Your task to perform on an android device: Go to CNN.com Image 0: 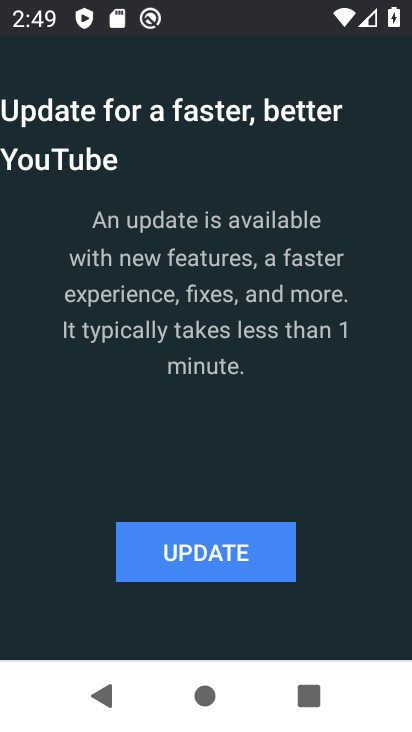
Step 0: press home button
Your task to perform on an android device: Go to CNN.com Image 1: 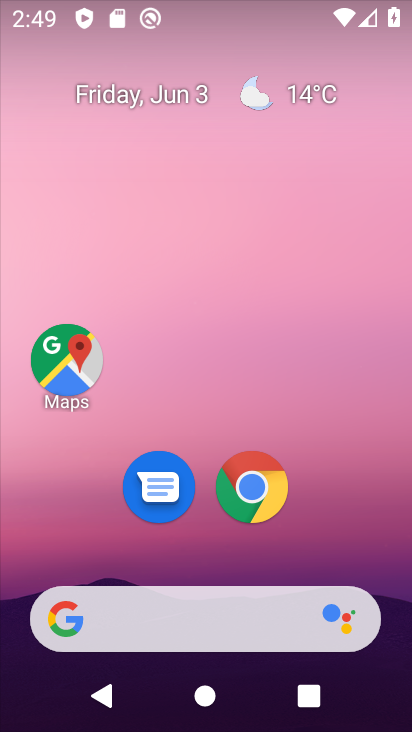
Step 1: click (247, 509)
Your task to perform on an android device: Go to CNN.com Image 2: 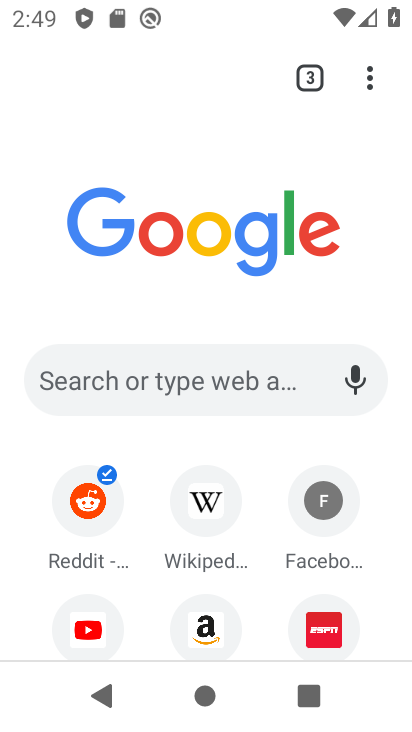
Step 2: click (124, 381)
Your task to perform on an android device: Go to CNN.com Image 3: 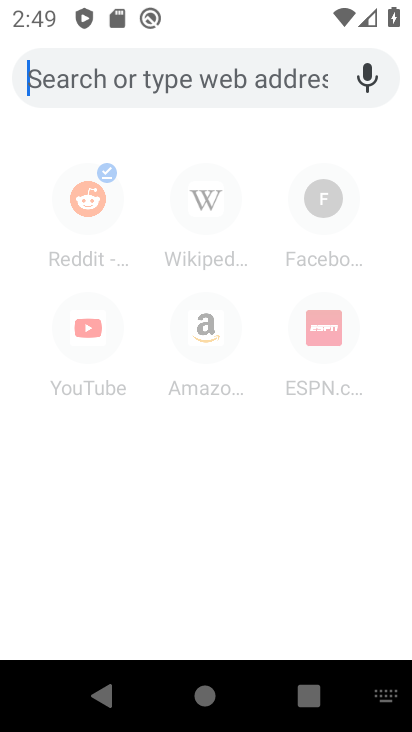
Step 3: type "cnn.com"
Your task to perform on an android device: Go to CNN.com Image 4: 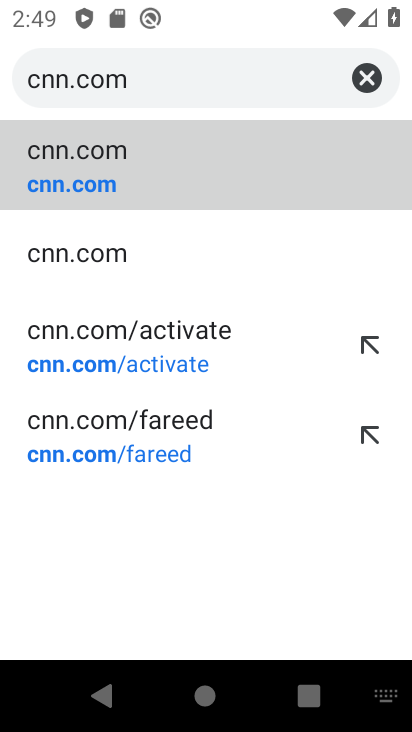
Step 4: click (94, 144)
Your task to perform on an android device: Go to CNN.com Image 5: 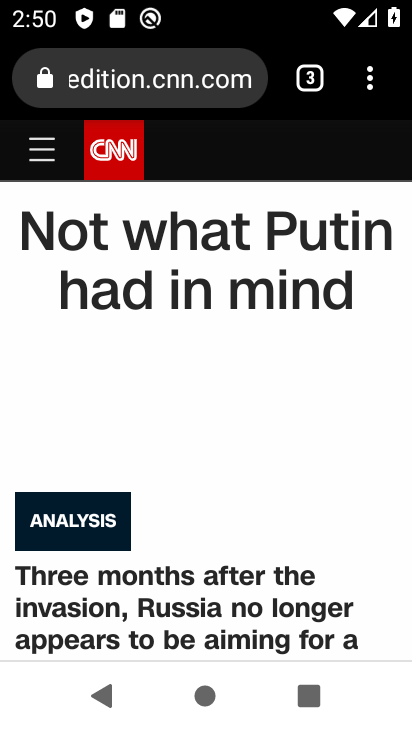
Step 5: task complete